Your task to perform on an android device: Open the calendar and show me this week's events? Image 0: 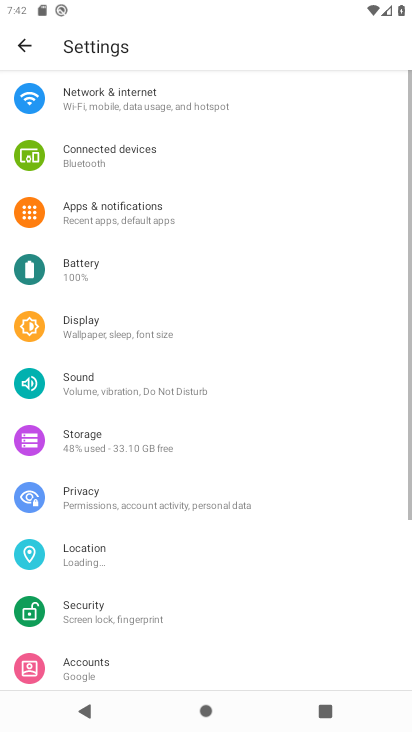
Step 0: press home button
Your task to perform on an android device: Open the calendar and show me this week's events? Image 1: 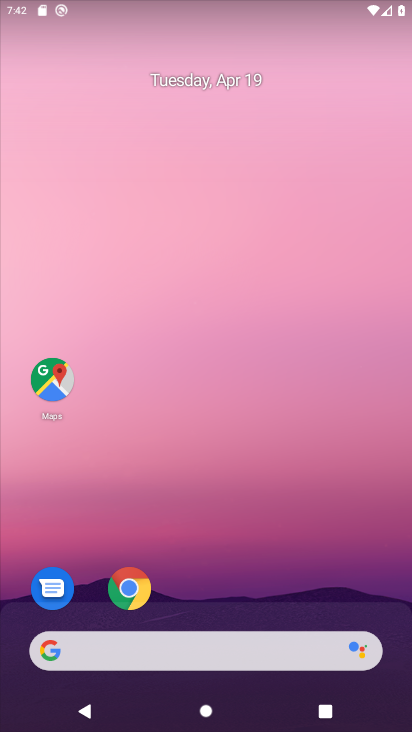
Step 1: drag from (222, 395) to (260, 27)
Your task to perform on an android device: Open the calendar and show me this week's events? Image 2: 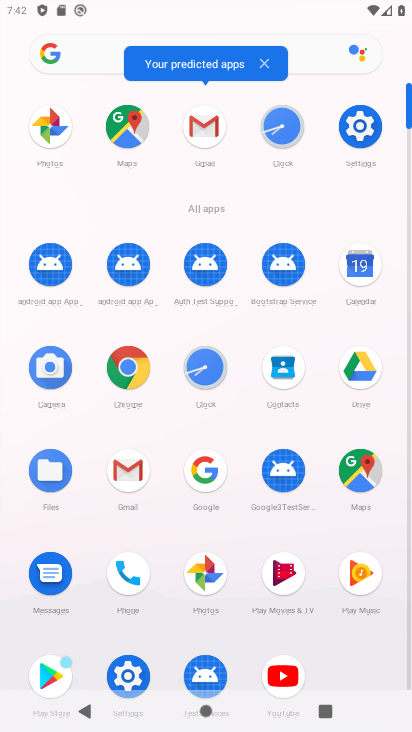
Step 2: click (359, 257)
Your task to perform on an android device: Open the calendar and show me this week's events? Image 3: 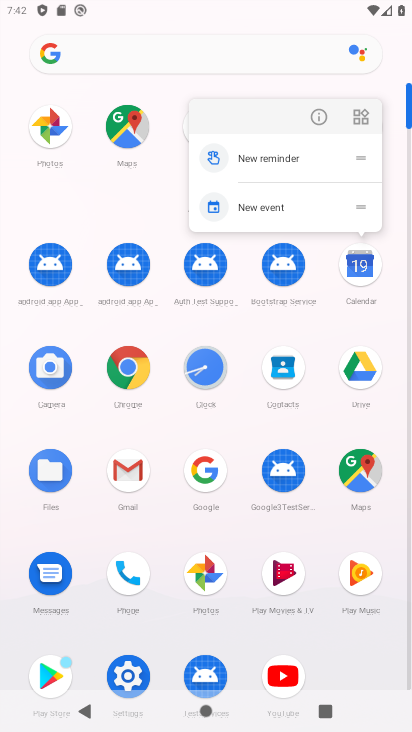
Step 3: click (365, 273)
Your task to perform on an android device: Open the calendar and show me this week's events? Image 4: 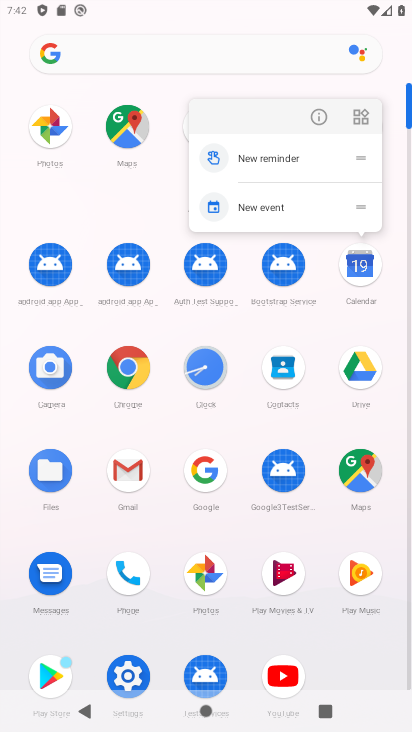
Step 4: click (94, 203)
Your task to perform on an android device: Open the calendar and show me this week's events? Image 5: 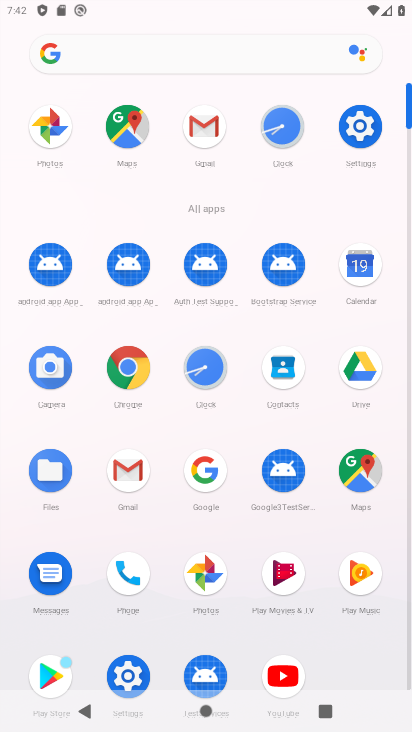
Step 5: click (356, 263)
Your task to perform on an android device: Open the calendar and show me this week's events? Image 6: 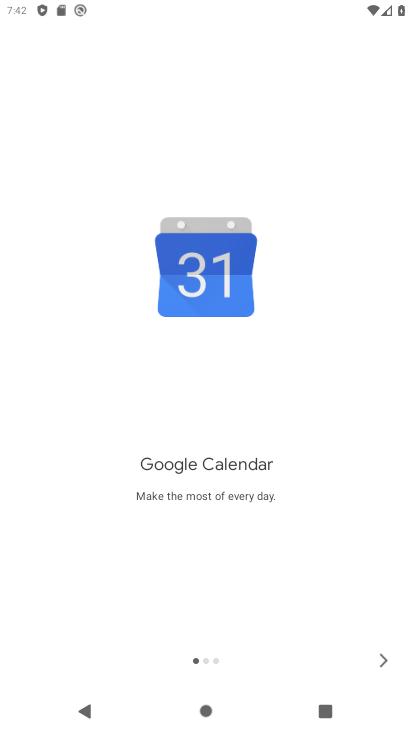
Step 6: click (389, 663)
Your task to perform on an android device: Open the calendar and show me this week's events? Image 7: 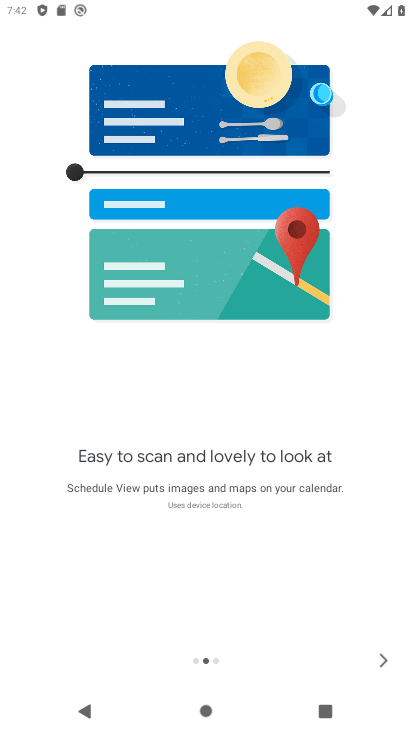
Step 7: click (380, 656)
Your task to perform on an android device: Open the calendar and show me this week's events? Image 8: 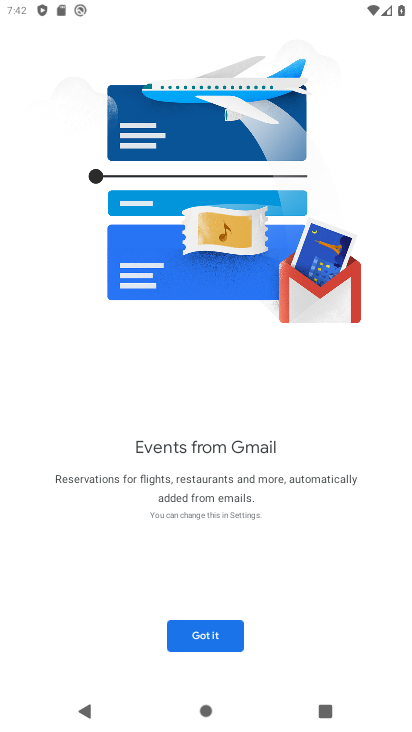
Step 8: click (224, 629)
Your task to perform on an android device: Open the calendar and show me this week's events? Image 9: 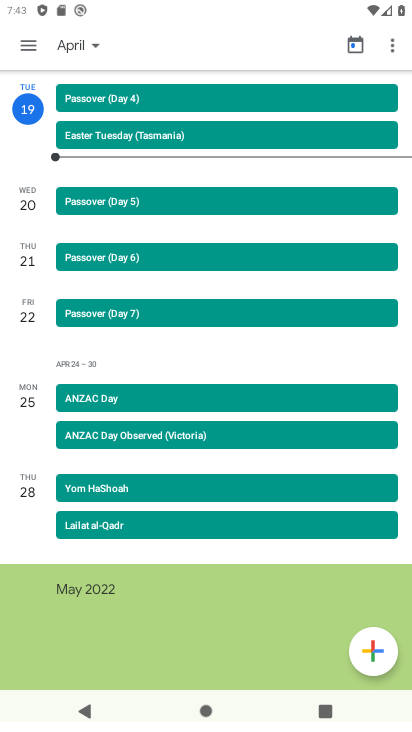
Step 9: click (26, 40)
Your task to perform on an android device: Open the calendar and show me this week's events? Image 10: 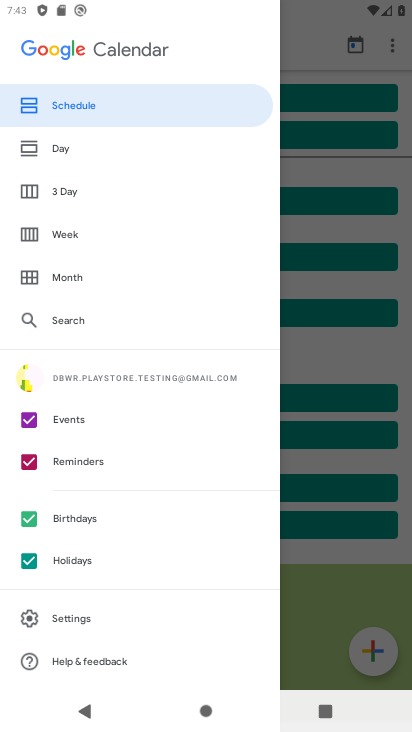
Step 10: click (62, 228)
Your task to perform on an android device: Open the calendar and show me this week's events? Image 11: 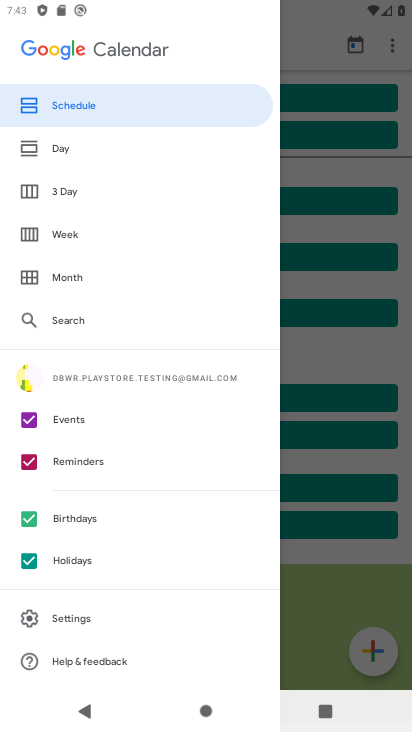
Step 11: click (45, 230)
Your task to perform on an android device: Open the calendar and show me this week's events? Image 12: 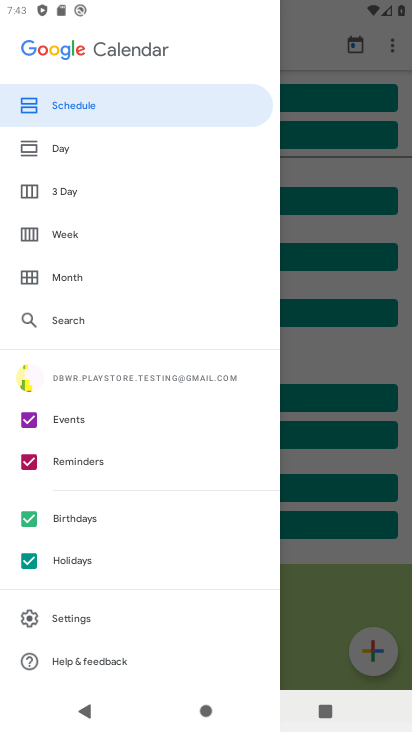
Step 12: drag from (62, 462) to (95, 113)
Your task to perform on an android device: Open the calendar and show me this week's events? Image 13: 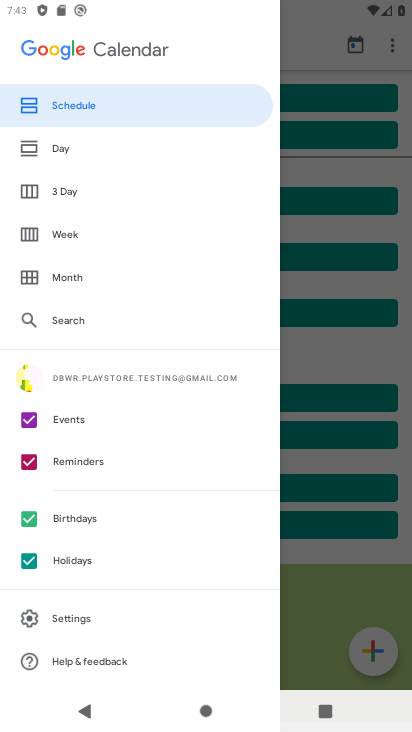
Step 13: drag from (86, 190) to (81, 625)
Your task to perform on an android device: Open the calendar and show me this week's events? Image 14: 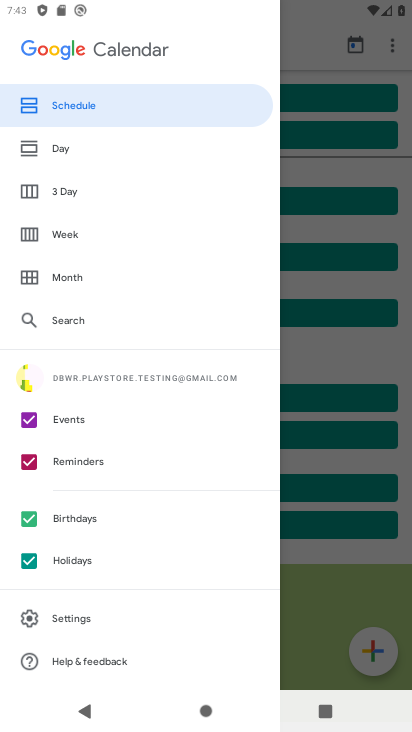
Step 14: click (52, 232)
Your task to perform on an android device: Open the calendar and show me this week's events? Image 15: 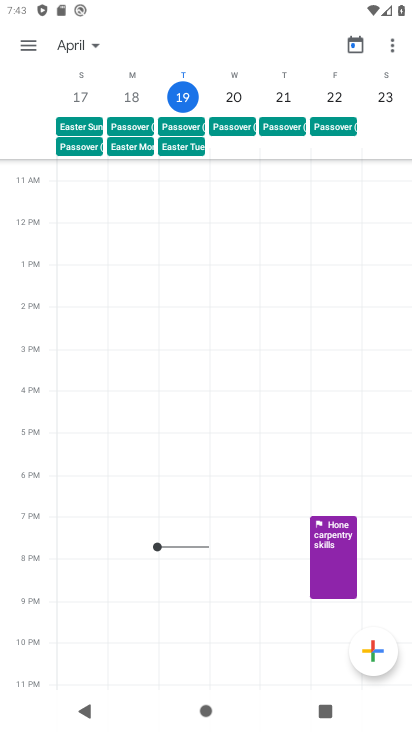
Step 15: click (177, 93)
Your task to perform on an android device: Open the calendar and show me this week's events? Image 16: 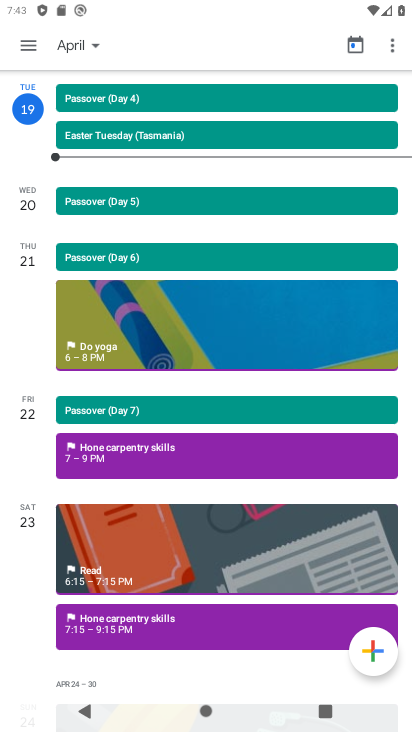
Step 16: click (23, 41)
Your task to perform on an android device: Open the calendar and show me this week's events? Image 17: 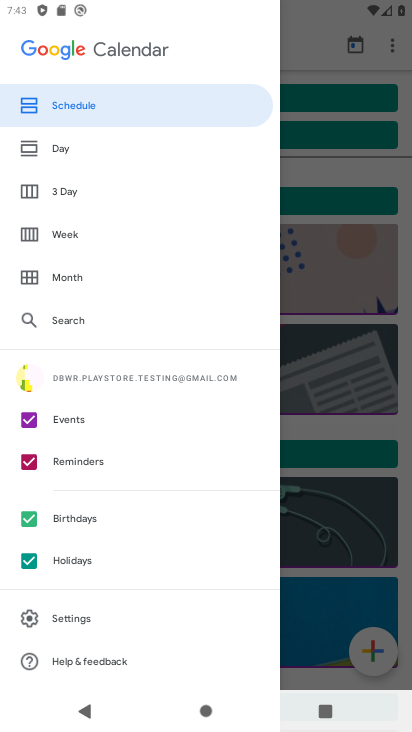
Step 17: click (29, 466)
Your task to perform on an android device: Open the calendar and show me this week's events? Image 18: 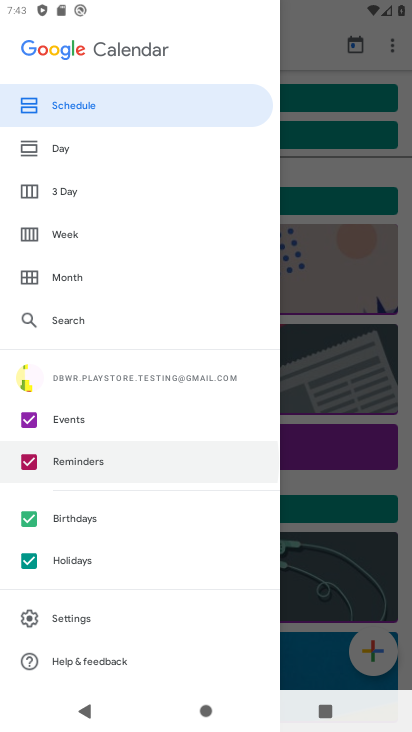
Step 18: click (28, 521)
Your task to perform on an android device: Open the calendar and show me this week's events? Image 19: 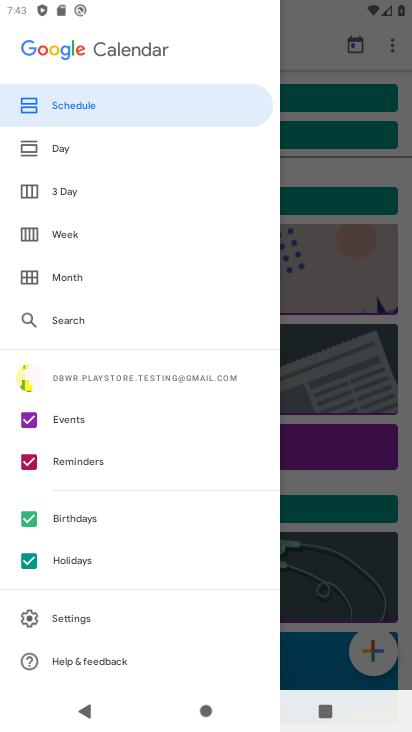
Step 19: click (30, 561)
Your task to perform on an android device: Open the calendar and show me this week's events? Image 20: 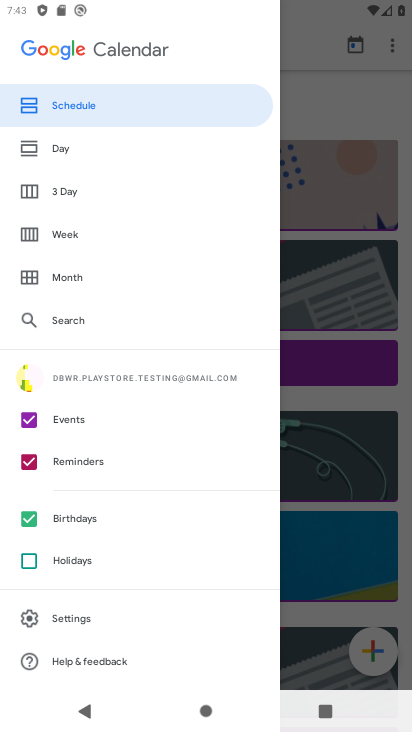
Step 20: click (30, 514)
Your task to perform on an android device: Open the calendar and show me this week's events? Image 21: 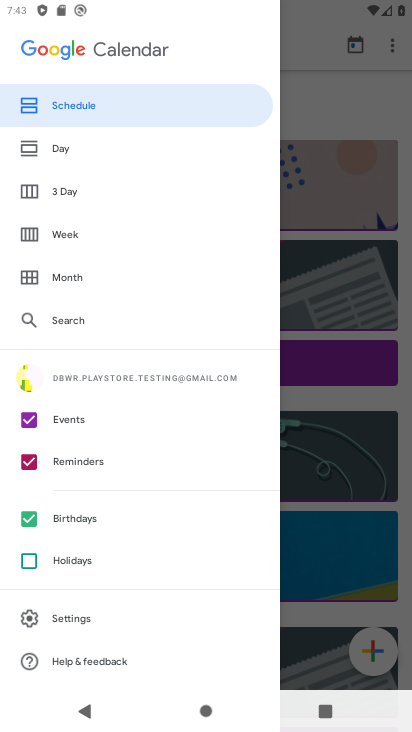
Step 21: click (27, 456)
Your task to perform on an android device: Open the calendar and show me this week's events? Image 22: 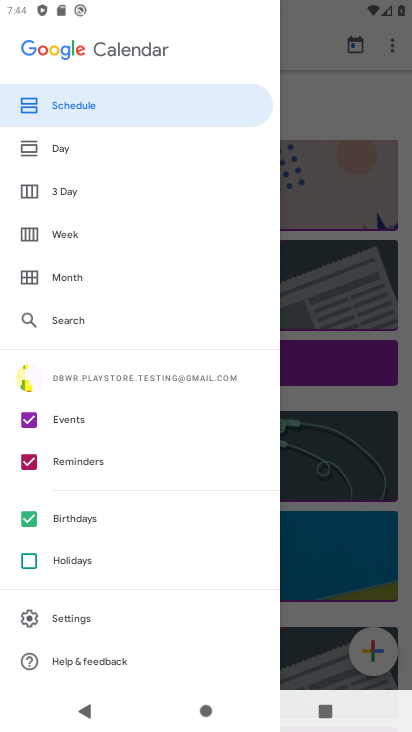
Step 22: click (29, 462)
Your task to perform on an android device: Open the calendar and show me this week's events? Image 23: 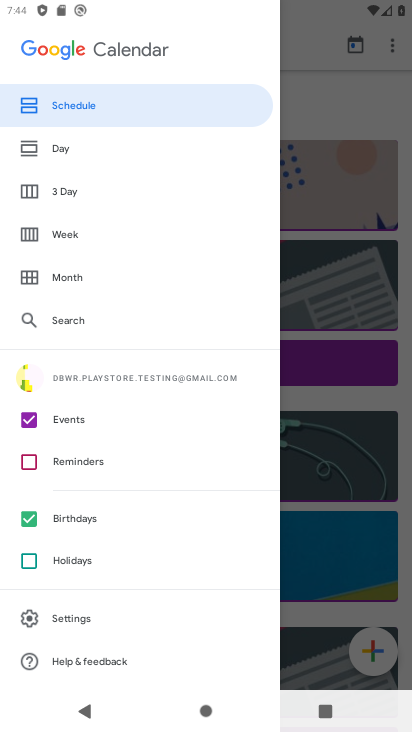
Step 23: click (26, 513)
Your task to perform on an android device: Open the calendar and show me this week's events? Image 24: 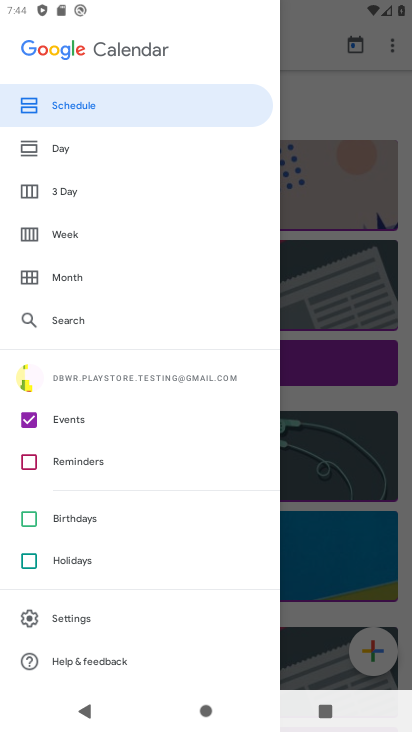
Step 24: click (72, 110)
Your task to perform on an android device: Open the calendar and show me this week's events? Image 25: 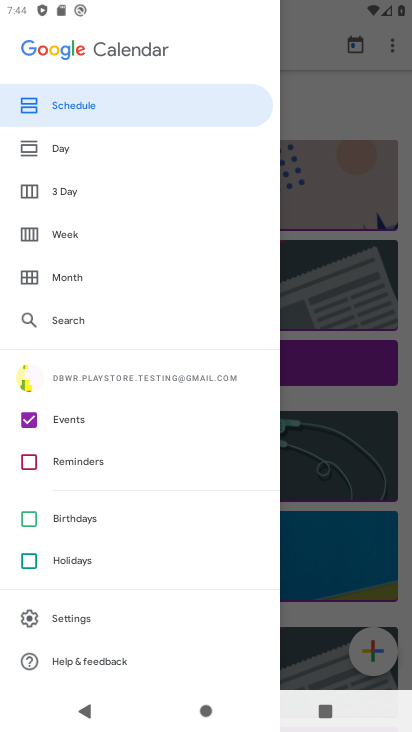
Step 25: click (69, 107)
Your task to perform on an android device: Open the calendar and show me this week's events? Image 26: 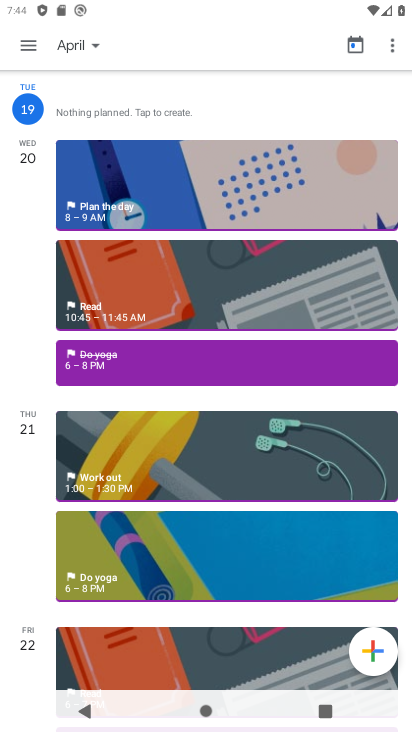
Step 26: task complete